Your task to perform on an android device: turn pop-ups on in chrome Image 0: 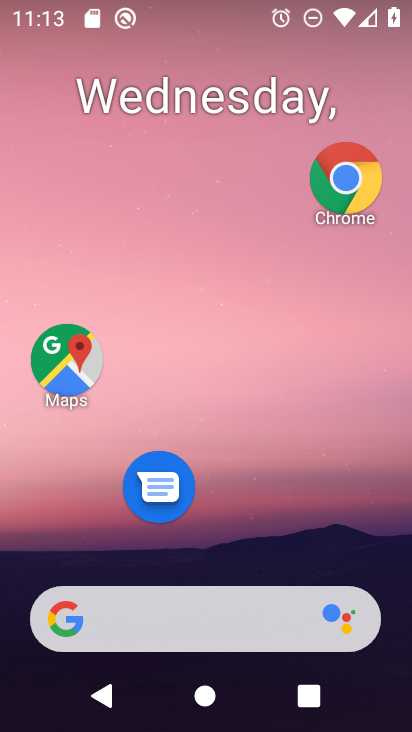
Step 0: drag from (275, 572) to (321, 110)
Your task to perform on an android device: turn pop-ups on in chrome Image 1: 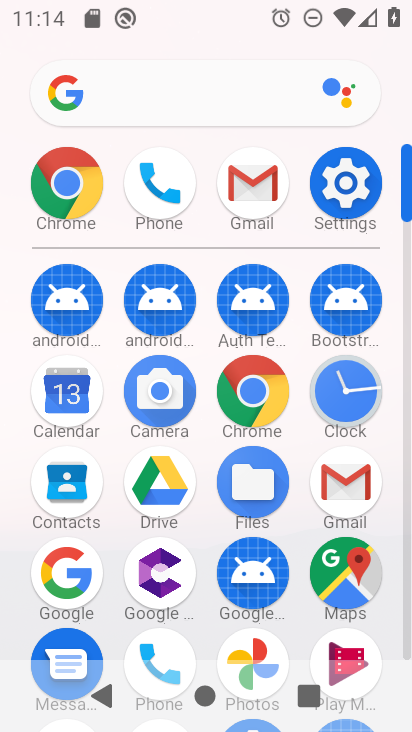
Step 1: click (69, 202)
Your task to perform on an android device: turn pop-ups on in chrome Image 2: 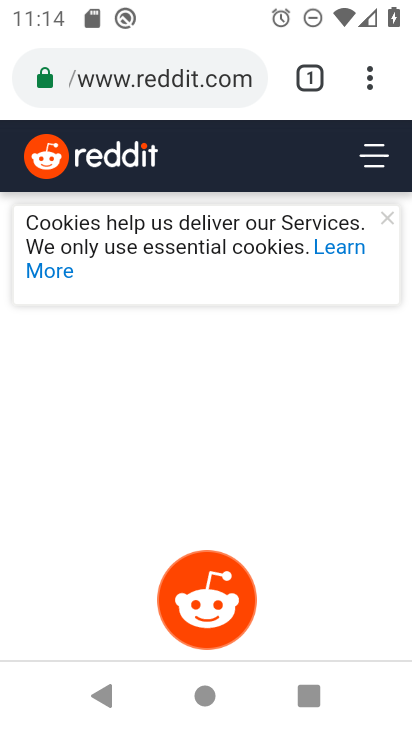
Step 2: click (378, 83)
Your task to perform on an android device: turn pop-ups on in chrome Image 3: 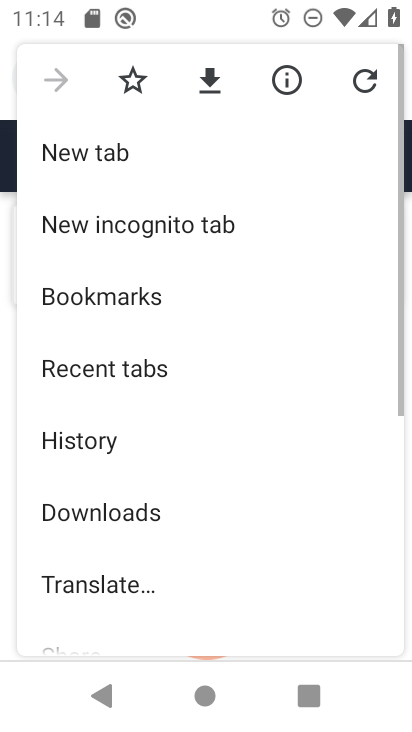
Step 3: drag from (156, 495) to (199, 132)
Your task to perform on an android device: turn pop-ups on in chrome Image 4: 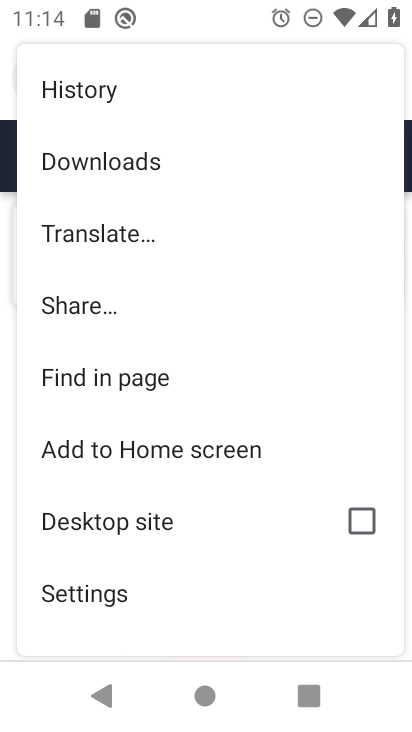
Step 4: click (114, 592)
Your task to perform on an android device: turn pop-ups on in chrome Image 5: 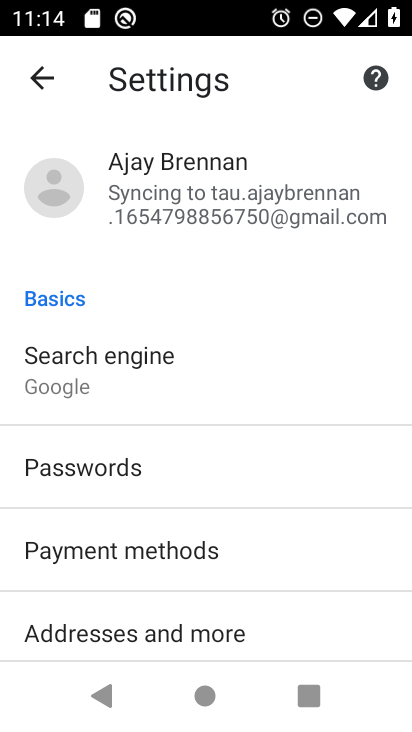
Step 5: drag from (115, 569) to (129, 220)
Your task to perform on an android device: turn pop-ups on in chrome Image 6: 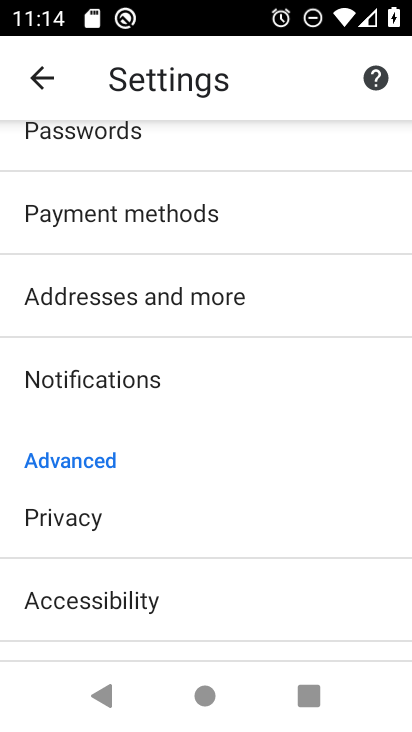
Step 6: drag from (110, 546) to (150, 293)
Your task to perform on an android device: turn pop-ups on in chrome Image 7: 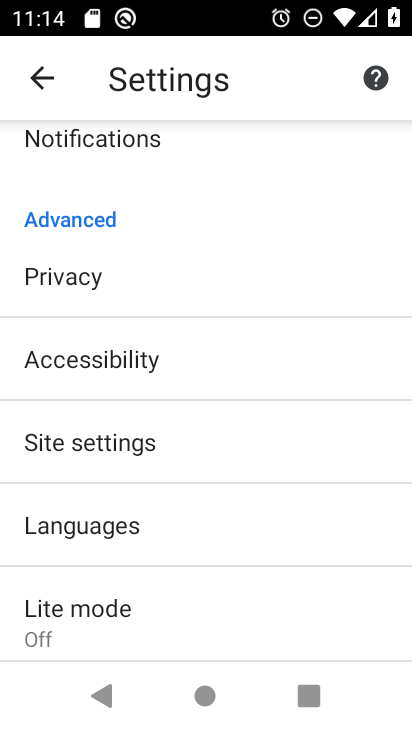
Step 7: click (127, 452)
Your task to perform on an android device: turn pop-ups on in chrome Image 8: 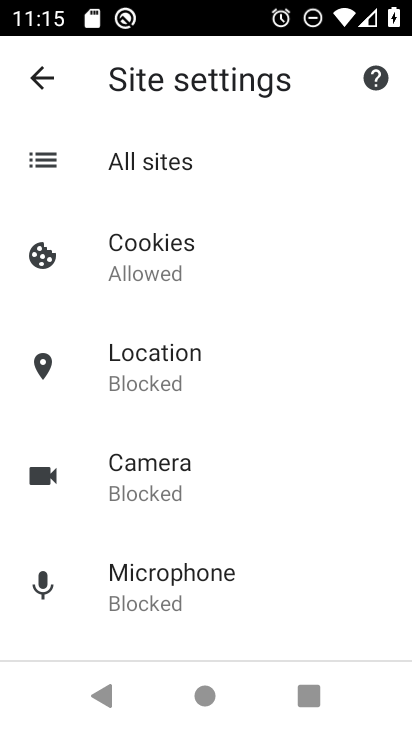
Step 8: drag from (141, 522) to (195, 183)
Your task to perform on an android device: turn pop-ups on in chrome Image 9: 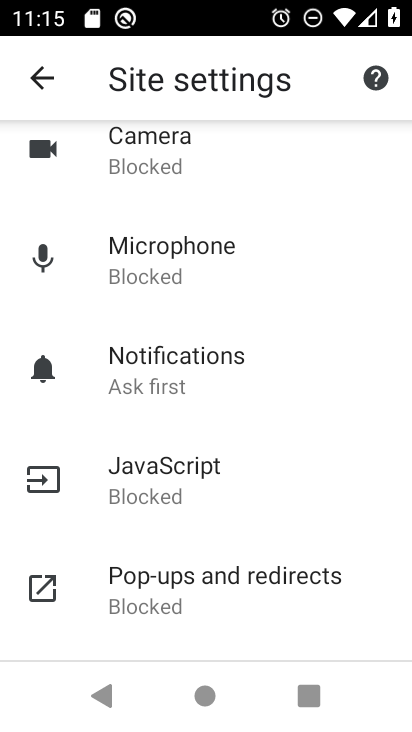
Step 9: click (163, 607)
Your task to perform on an android device: turn pop-ups on in chrome Image 10: 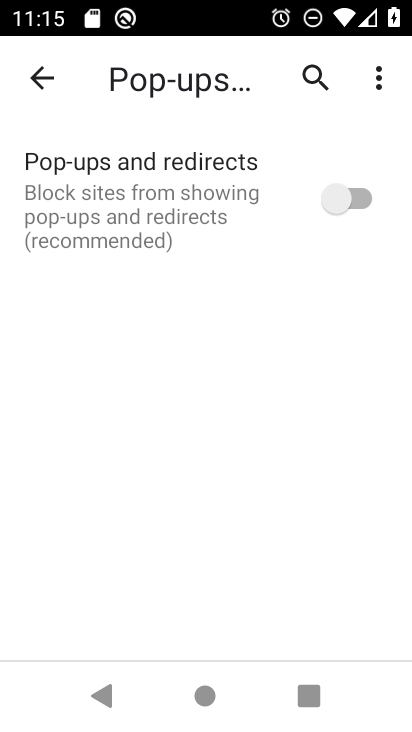
Step 10: click (251, 209)
Your task to perform on an android device: turn pop-ups on in chrome Image 11: 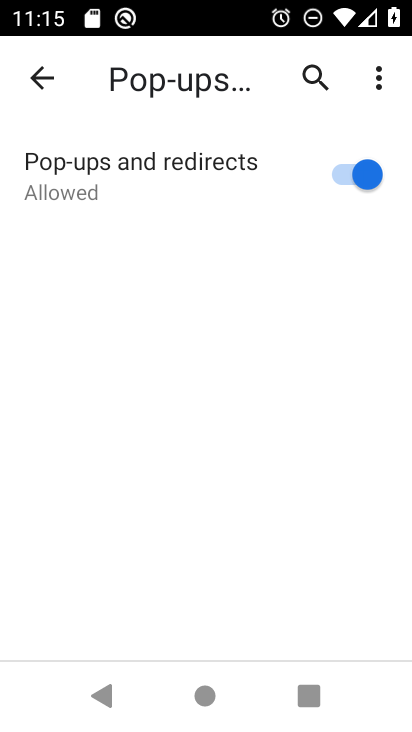
Step 11: task complete